Your task to perform on an android device: add a label to a message in the gmail app Image 0: 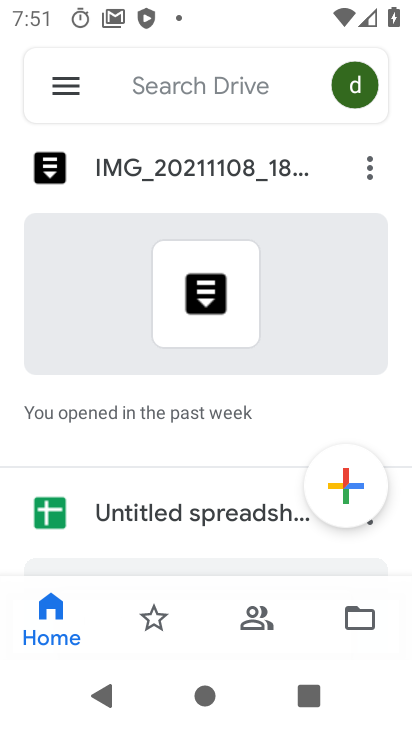
Step 0: press home button
Your task to perform on an android device: add a label to a message in the gmail app Image 1: 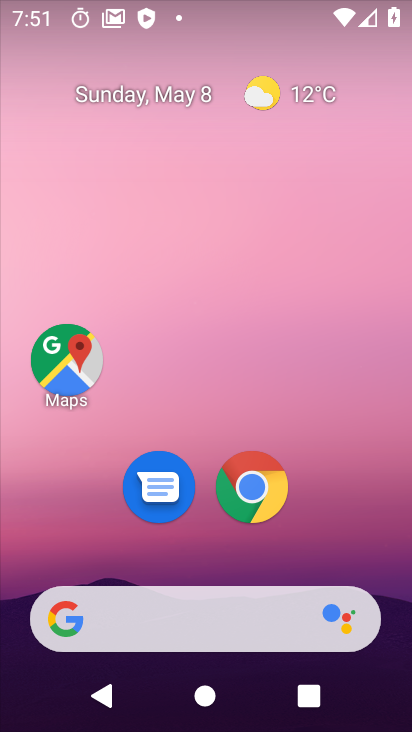
Step 1: drag from (298, 553) to (297, 151)
Your task to perform on an android device: add a label to a message in the gmail app Image 2: 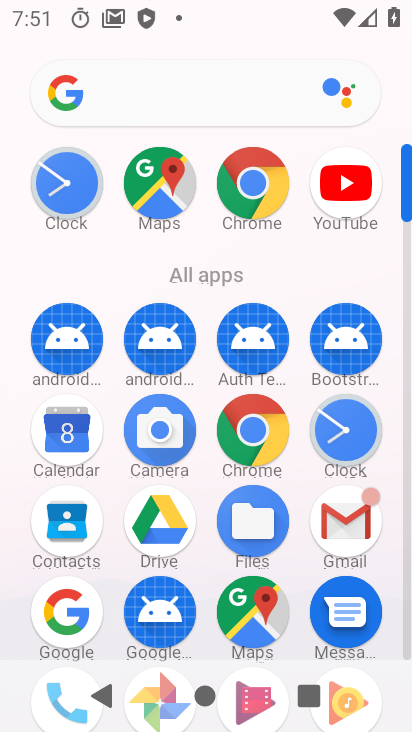
Step 2: click (335, 519)
Your task to perform on an android device: add a label to a message in the gmail app Image 3: 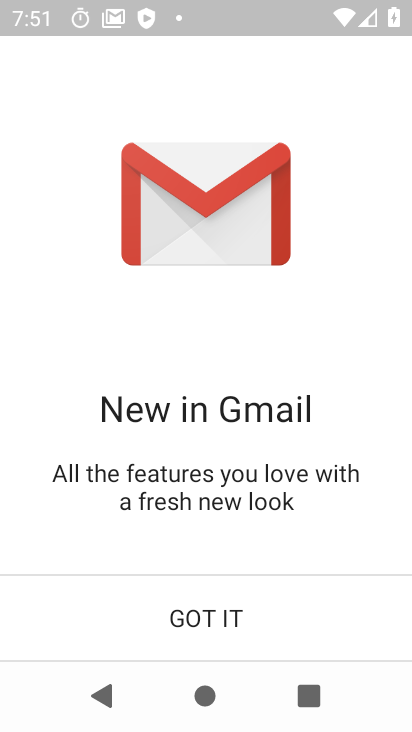
Step 3: click (194, 612)
Your task to perform on an android device: add a label to a message in the gmail app Image 4: 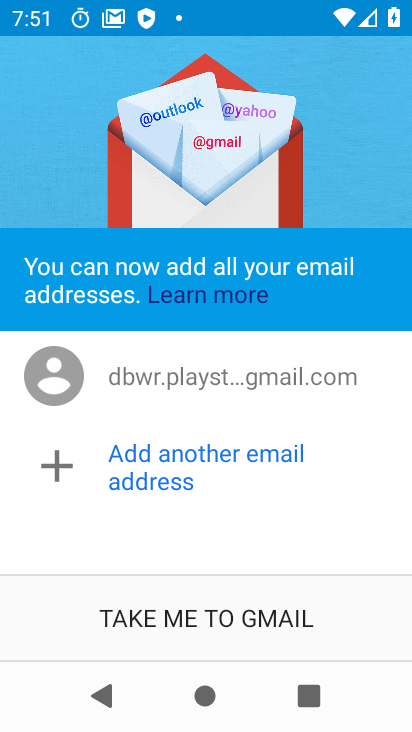
Step 4: click (194, 612)
Your task to perform on an android device: add a label to a message in the gmail app Image 5: 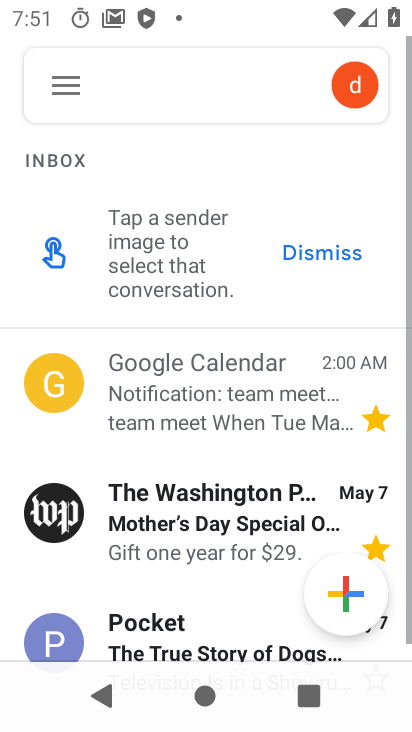
Step 5: drag from (190, 511) to (198, 251)
Your task to perform on an android device: add a label to a message in the gmail app Image 6: 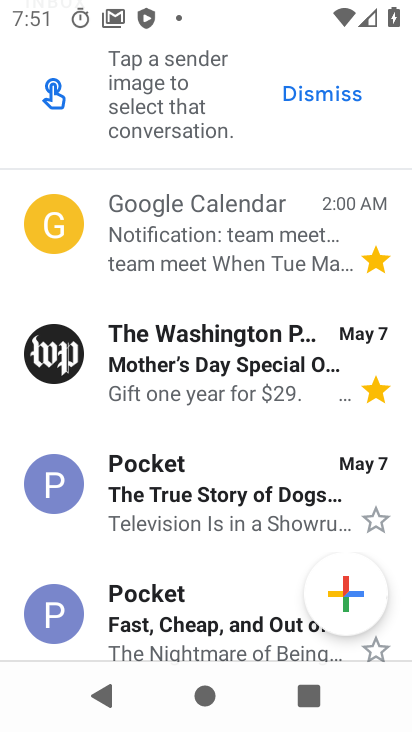
Step 6: click (79, 363)
Your task to perform on an android device: add a label to a message in the gmail app Image 7: 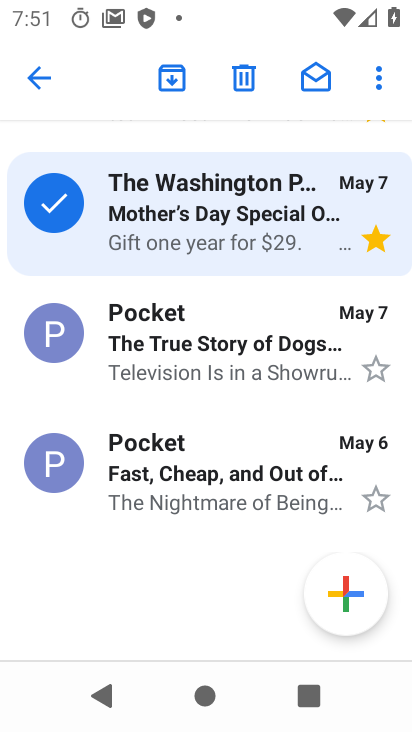
Step 7: click (377, 74)
Your task to perform on an android device: add a label to a message in the gmail app Image 8: 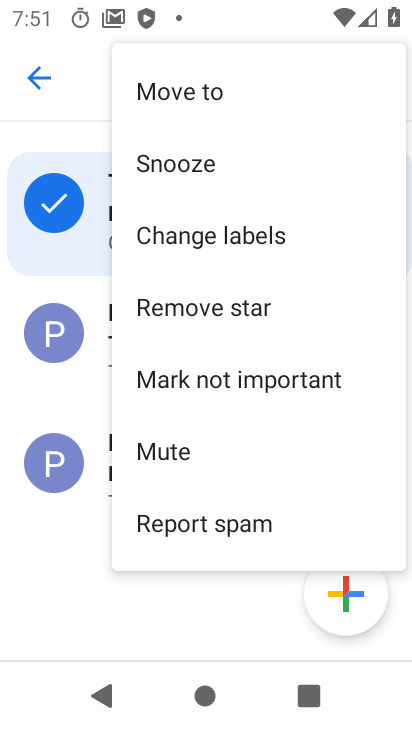
Step 8: click (175, 240)
Your task to perform on an android device: add a label to a message in the gmail app Image 9: 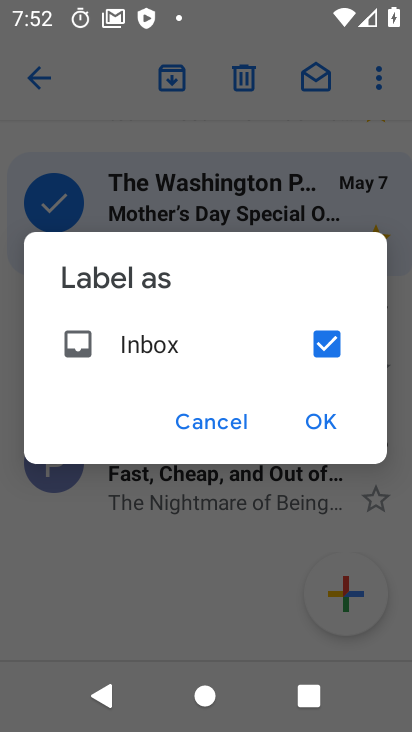
Step 9: click (331, 413)
Your task to perform on an android device: add a label to a message in the gmail app Image 10: 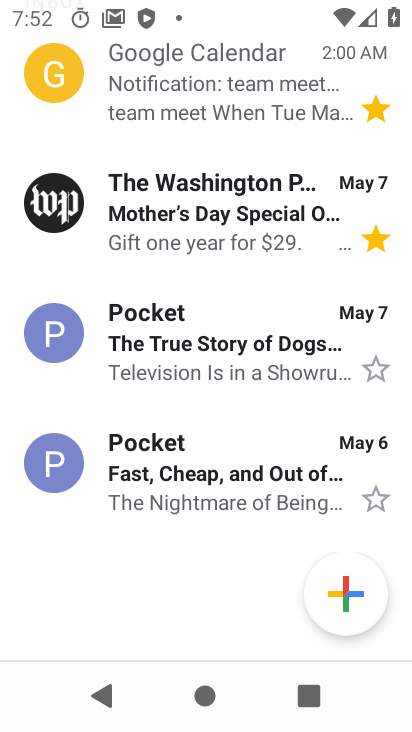
Step 10: task complete